Your task to perform on an android device: What's the weather today? Image 0: 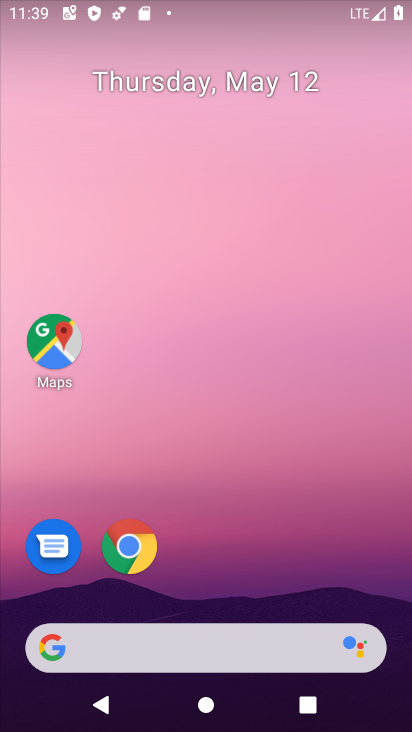
Step 0: click (178, 633)
Your task to perform on an android device: What's the weather today? Image 1: 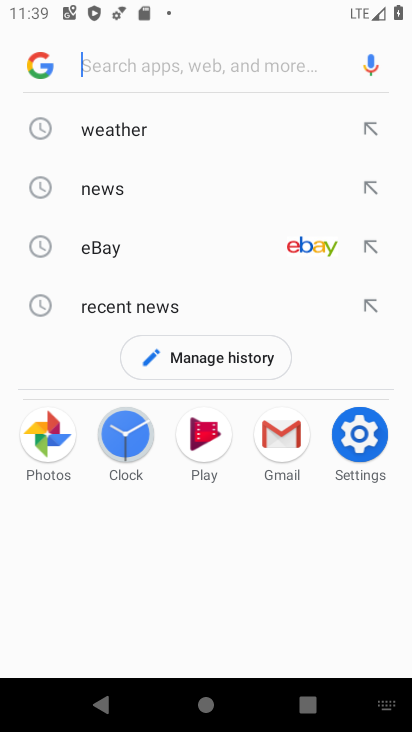
Step 1: click (114, 125)
Your task to perform on an android device: What's the weather today? Image 2: 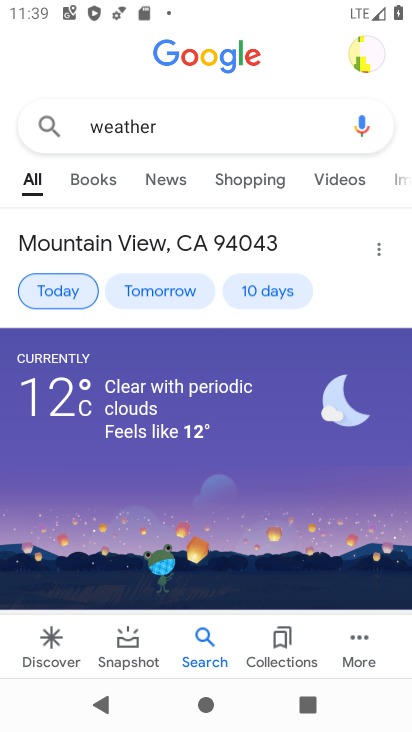
Step 2: task complete